Your task to perform on an android device: open wifi settings Image 0: 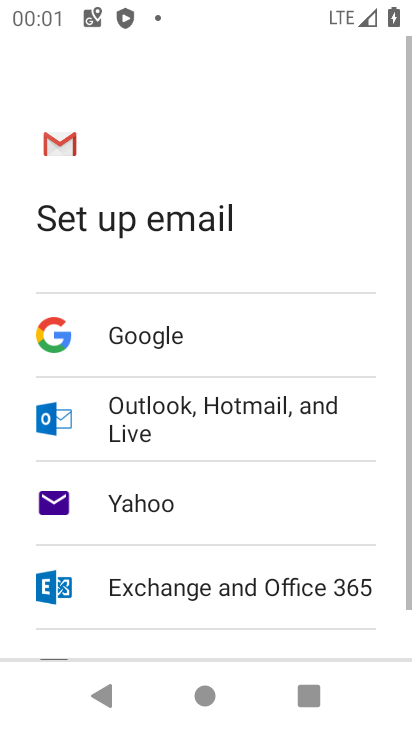
Step 0: drag from (244, 13) to (193, 661)
Your task to perform on an android device: open wifi settings Image 1: 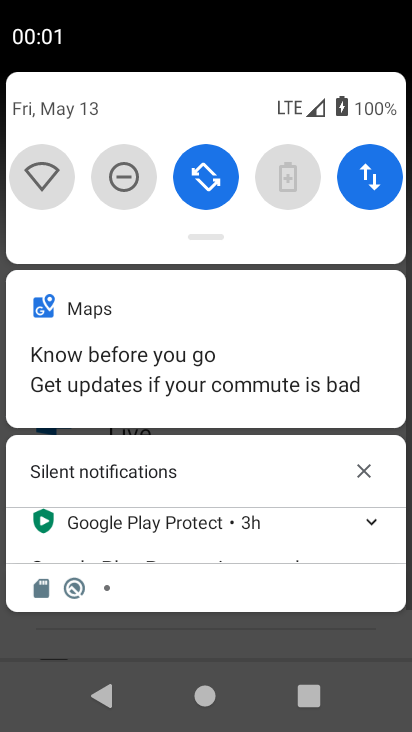
Step 1: click (67, 190)
Your task to perform on an android device: open wifi settings Image 2: 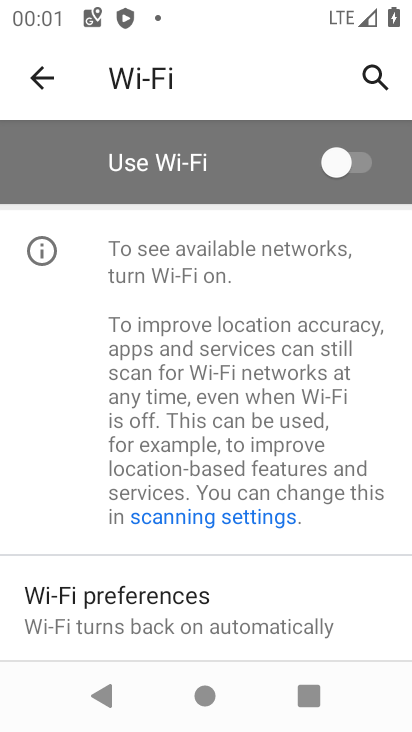
Step 2: click (350, 166)
Your task to perform on an android device: open wifi settings Image 3: 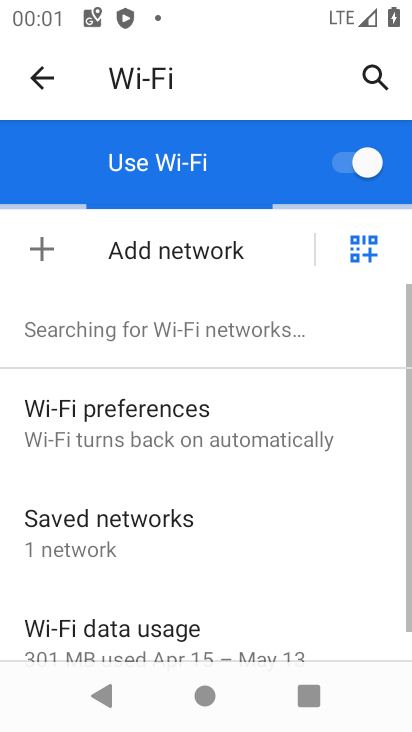
Step 3: task complete